Your task to perform on an android device: change notification settings in the gmail app Image 0: 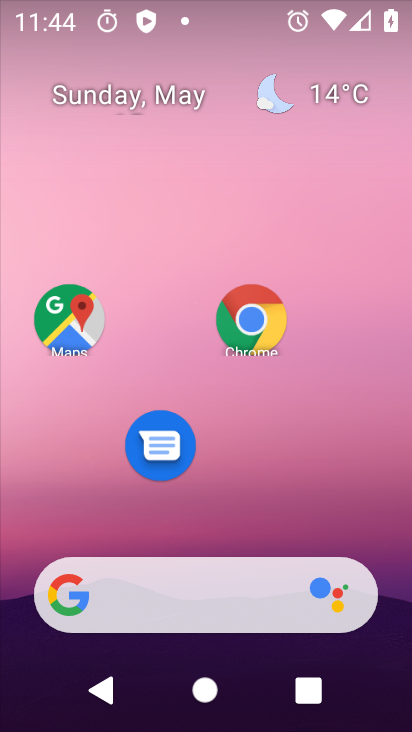
Step 0: press home button
Your task to perform on an android device: change notification settings in the gmail app Image 1: 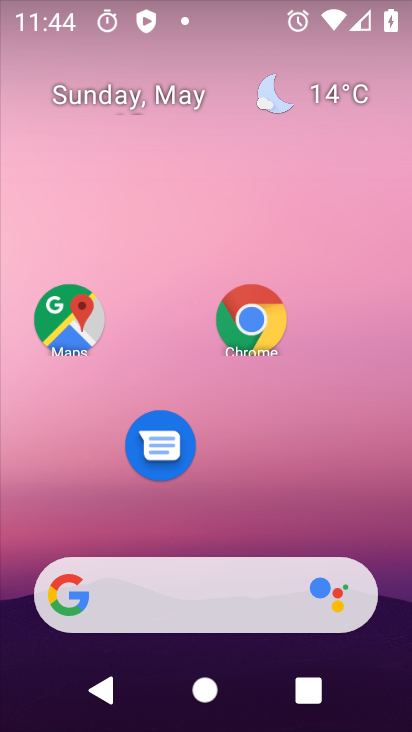
Step 1: drag from (193, 558) to (286, 145)
Your task to perform on an android device: change notification settings in the gmail app Image 2: 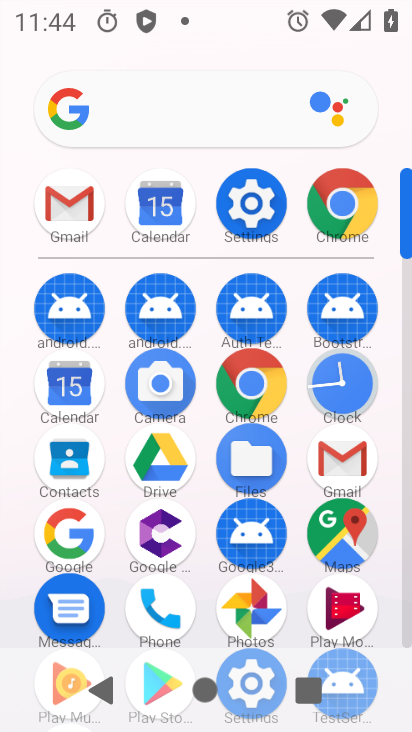
Step 2: click (59, 209)
Your task to perform on an android device: change notification settings in the gmail app Image 3: 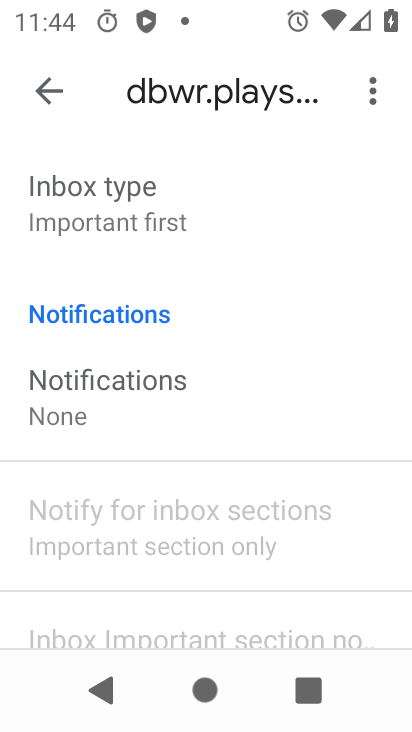
Step 3: click (95, 400)
Your task to perform on an android device: change notification settings in the gmail app Image 4: 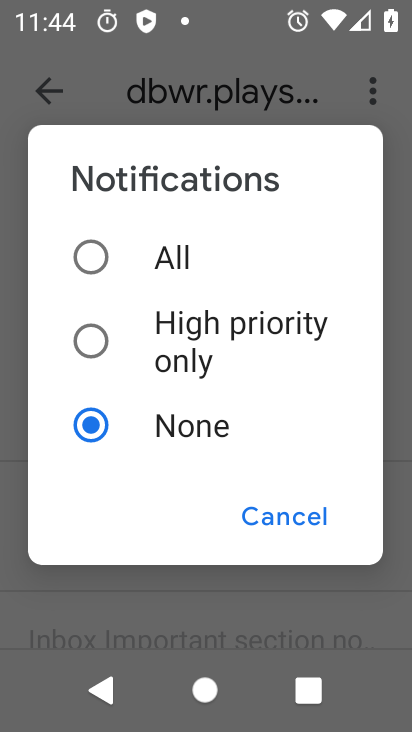
Step 4: click (98, 254)
Your task to perform on an android device: change notification settings in the gmail app Image 5: 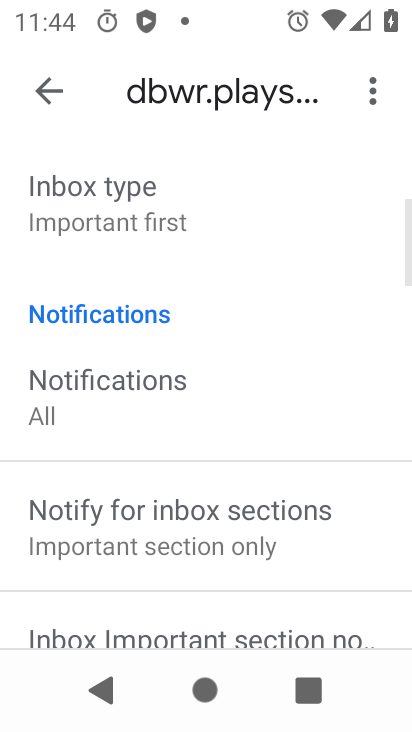
Step 5: task complete